Your task to perform on an android device: check the backup settings in the google photos Image 0: 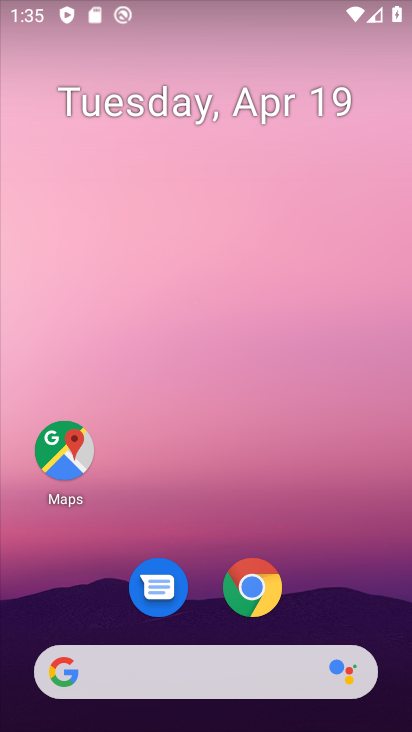
Step 0: drag from (209, 304) to (171, 119)
Your task to perform on an android device: check the backup settings in the google photos Image 1: 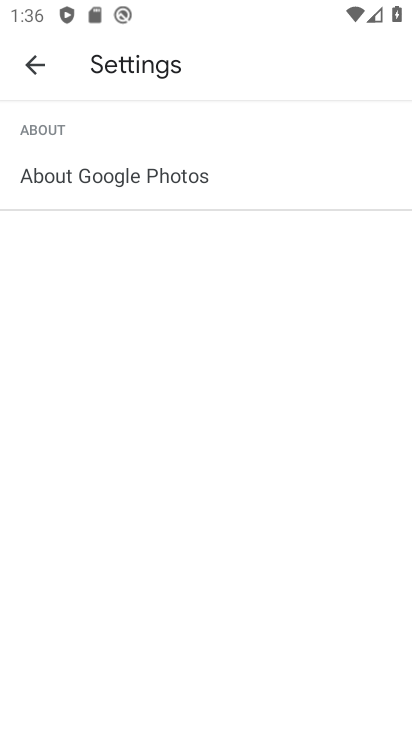
Step 1: click (26, 57)
Your task to perform on an android device: check the backup settings in the google photos Image 2: 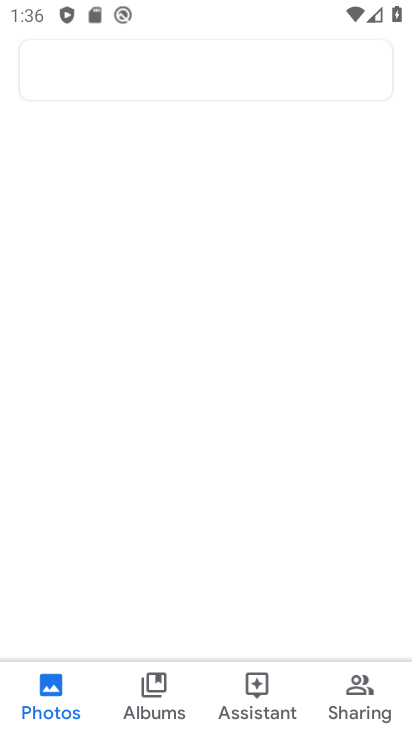
Step 2: click (36, 64)
Your task to perform on an android device: check the backup settings in the google photos Image 3: 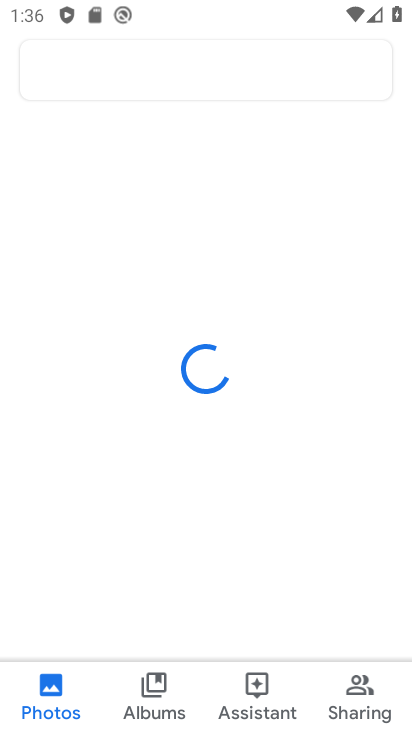
Step 3: drag from (71, 162) to (34, 66)
Your task to perform on an android device: check the backup settings in the google photos Image 4: 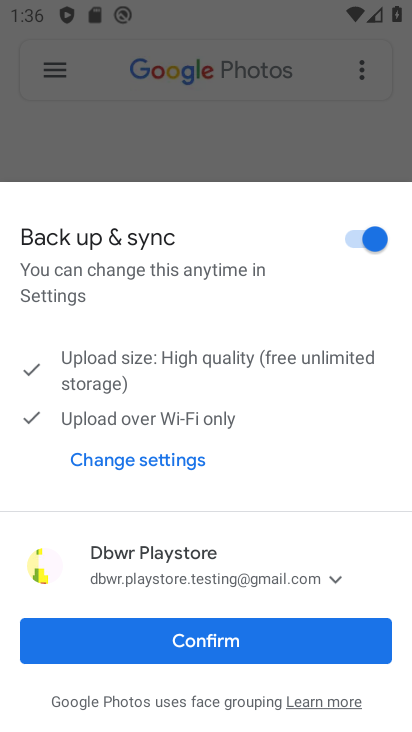
Step 4: click (209, 634)
Your task to perform on an android device: check the backup settings in the google photos Image 5: 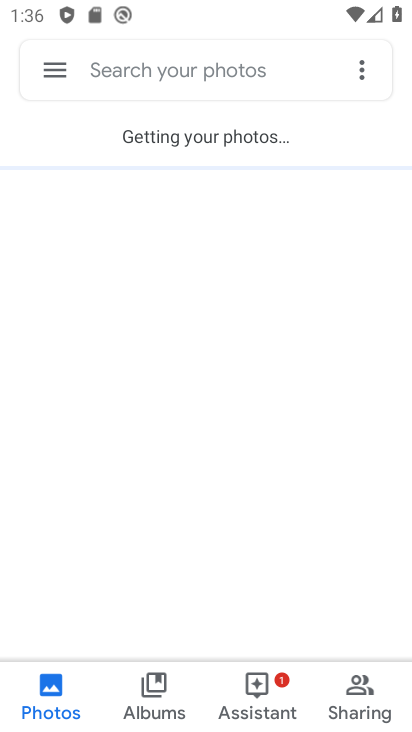
Step 5: click (178, 132)
Your task to perform on an android device: check the backup settings in the google photos Image 6: 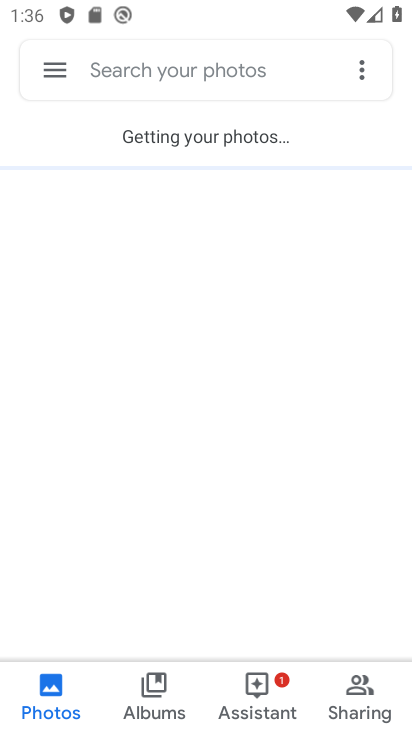
Step 6: click (178, 132)
Your task to perform on an android device: check the backup settings in the google photos Image 7: 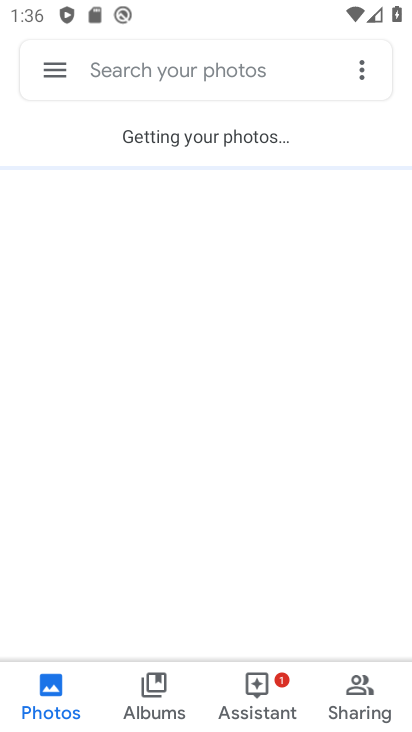
Step 7: click (178, 132)
Your task to perform on an android device: check the backup settings in the google photos Image 8: 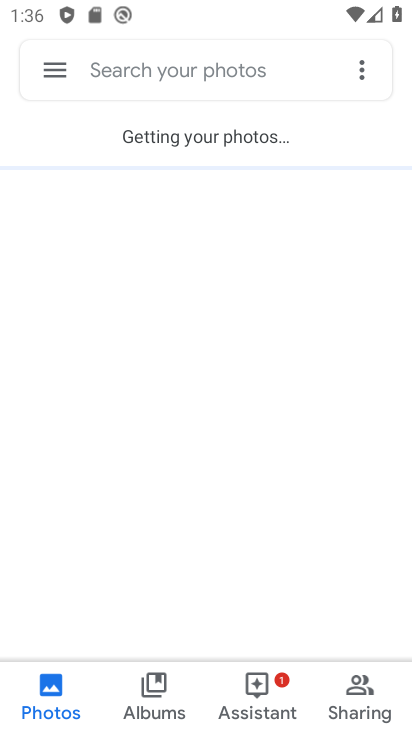
Step 8: click (178, 132)
Your task to perform on an android device: check the backup settings in the google photos Image 9: 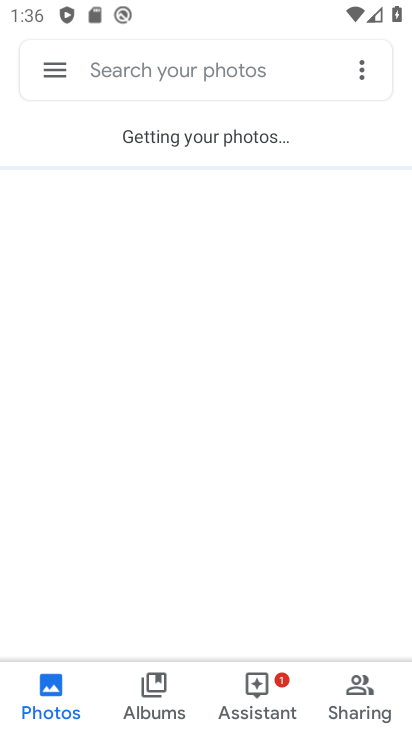
Step 9: click (178, 132)
Your task to perform on an android device: check the backup settings in the google photos Image 10: 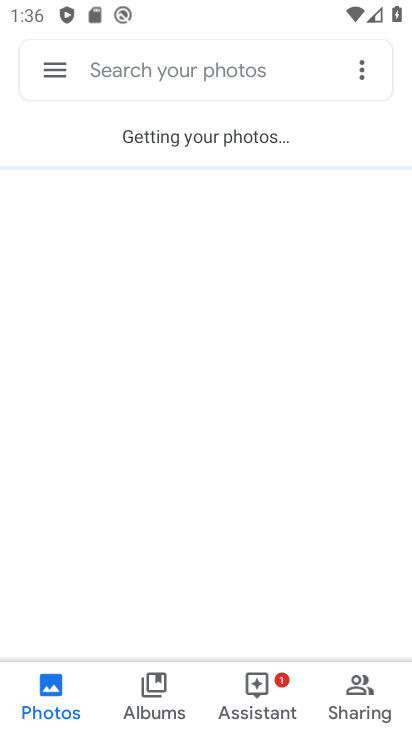
Step 10: click (178, 132)
Your task to perform on an android device: check the backup settings in the google photos Image 11: 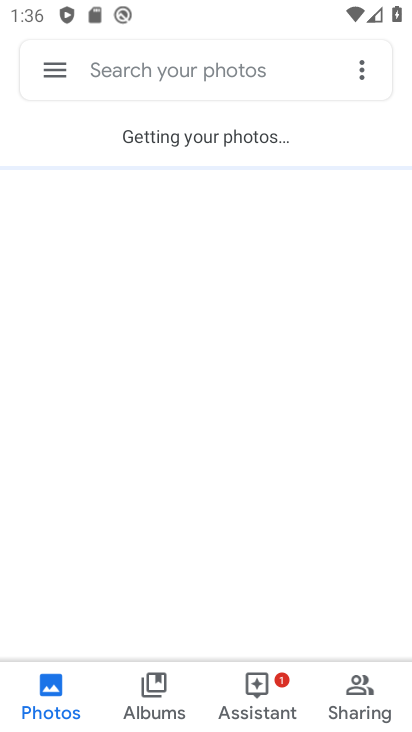
Step 11: click (357, 56)
Your task to perform on an android device: check the backup settings in the google photos Image 12: 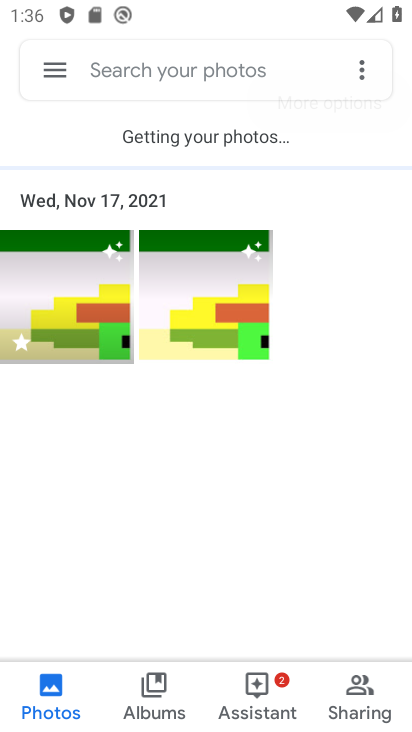
Step 12: click (52, 66)
Your task to perform on an android device: check the backup settings in the google photos Image 13: 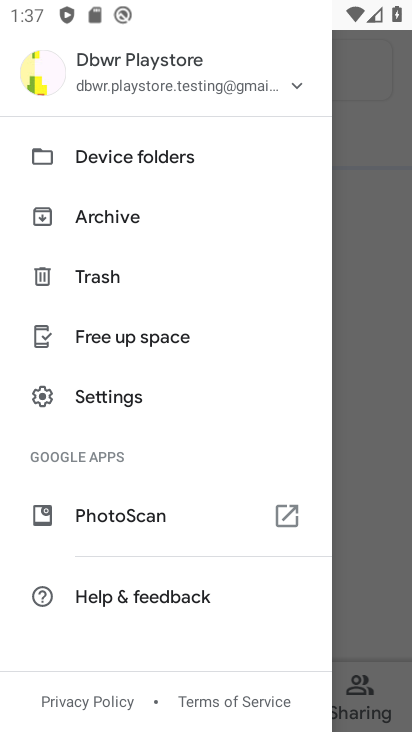
Step 13: click (107, 403)
Your task to perform on an android device: check the backup settings in the google photos Image 14: 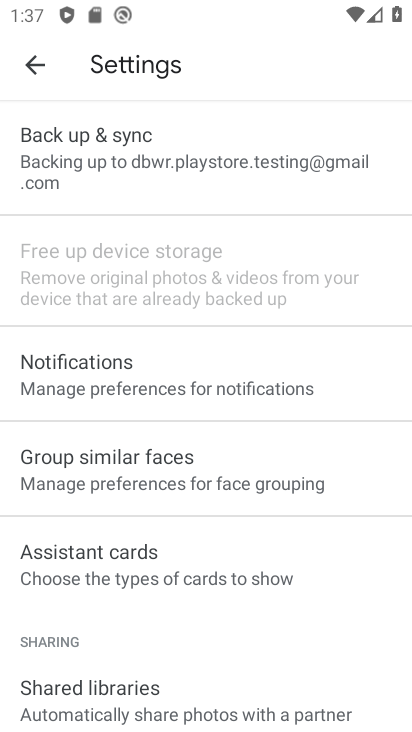
Step 14: click (96, 154)
Your task to perform on an android device: check the backup settings in the google photos Image 15: 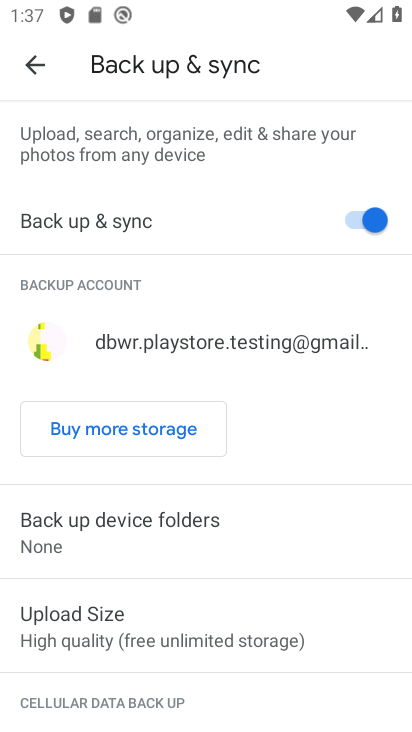
Step 15: task complete